Your task to perform on an android device: What's the weather going to be this weekend? Image 0: 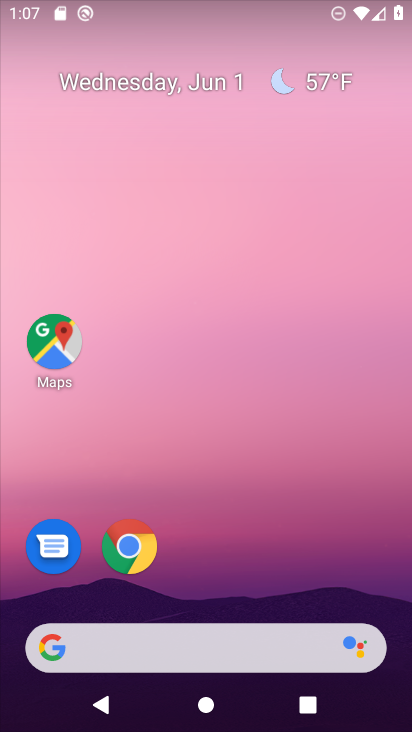
Step 0: click (199, 627)
Your task to perform on an android device: What's the weather going to be this weekend? Image 1: 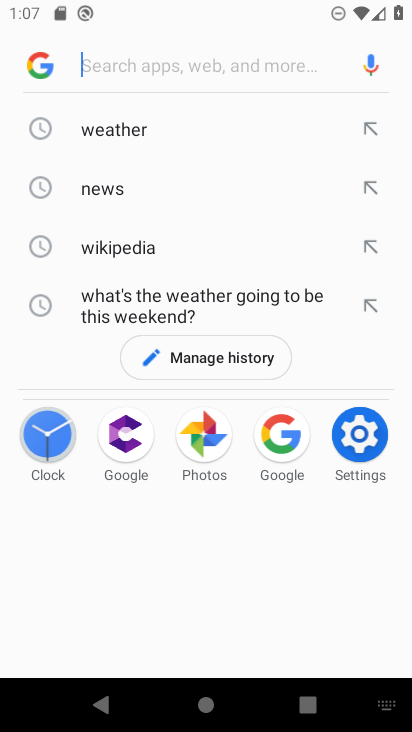
Step 1: click (126, 127)
Your task to perform on an android device: What's the weather going to be this weekend? Image 2: 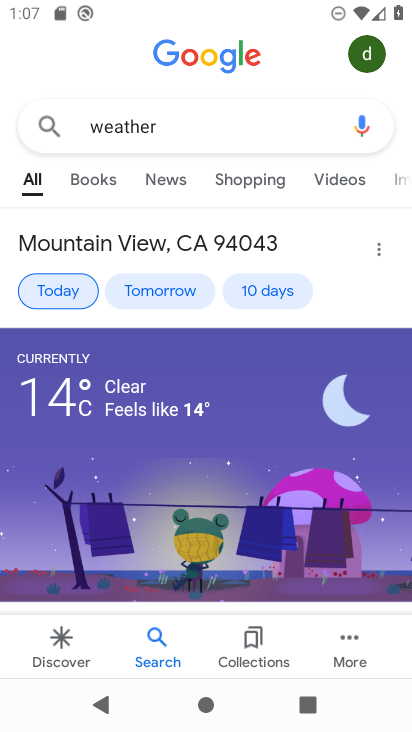
Step 2: task complete